Your task to perform on an android device: Go to Yahoo.com Image 0: 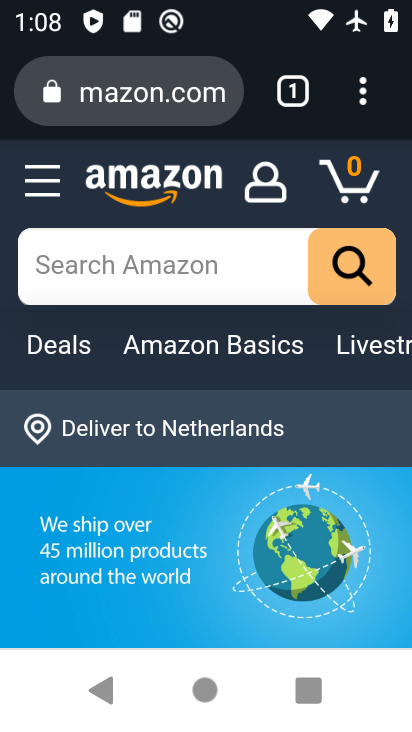
Step 0: press home button
Your task to perform on an android device: Go to Yahoo.com Image 1: 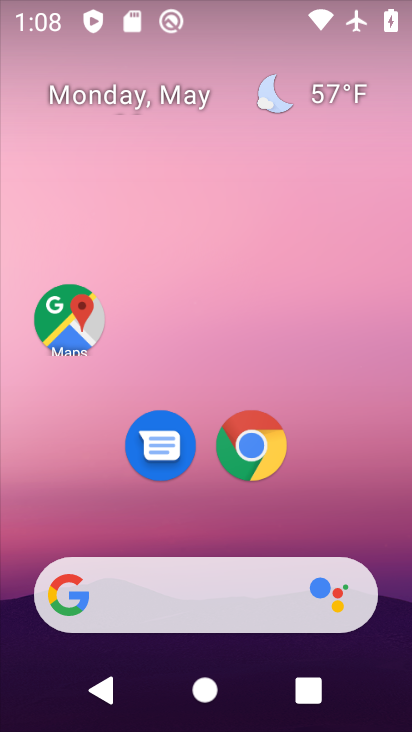
Step 1: drag from (392, 616) to (395, 440)
Your task to perform on an android device: Go to Yahoo.com Image 2: 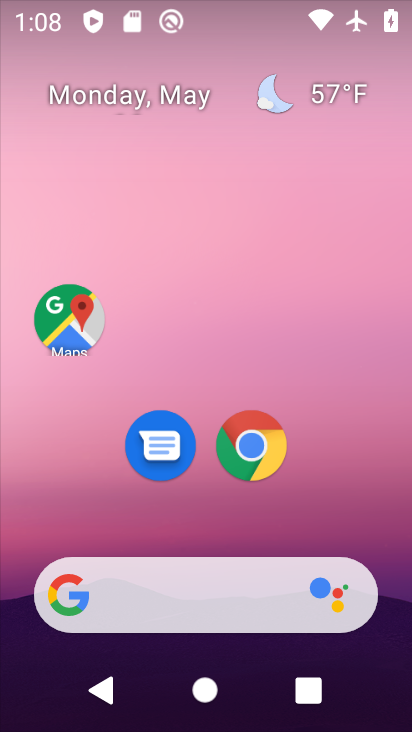
Step 2: click (283, 94)
Your task to perform on an android device: Go to Yahoo.com Image 3: 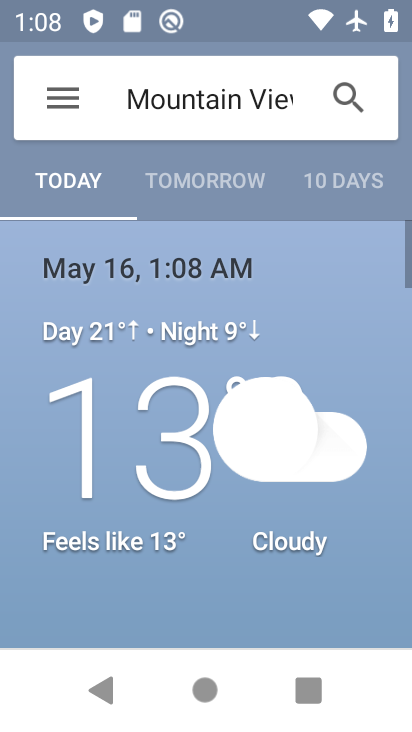
Step 3: press back button
Your task to perform on an android device: Go to Yahoo.com Image 4: 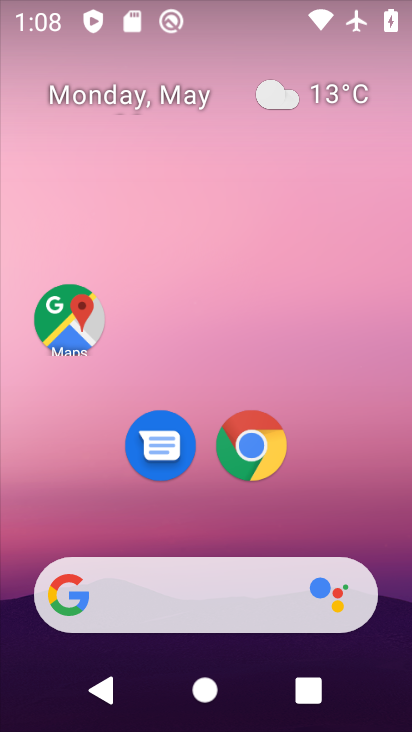
Step 4: drag from (401, 598) to (364, 188)
Your task to perform on an android device: Go to Yahoo.com Image 5: 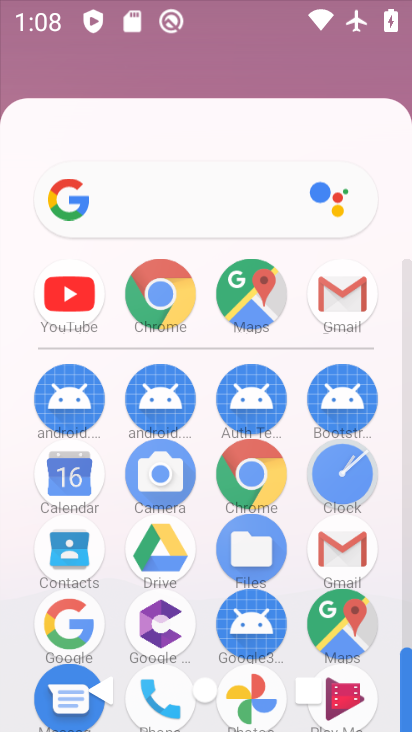
Step 5: click (303, 47)
Your task to perform on an android device: Go to Yahoo.com Image 6: 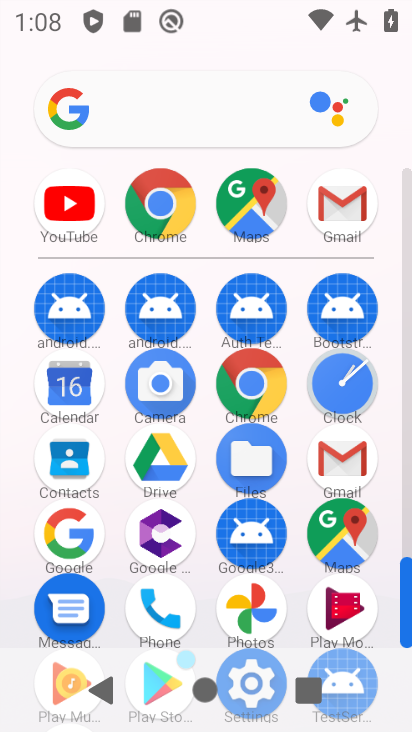
Step 6: click (270, 381)
Your task to perform on an android device: Go to Yahoo.com Image 7: 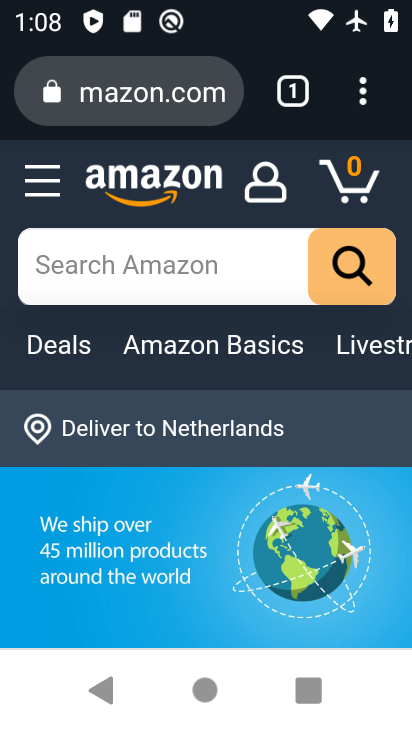
Step 7: press back button
Your task to perform on an android device: Go to Yahoo.com Image 8: 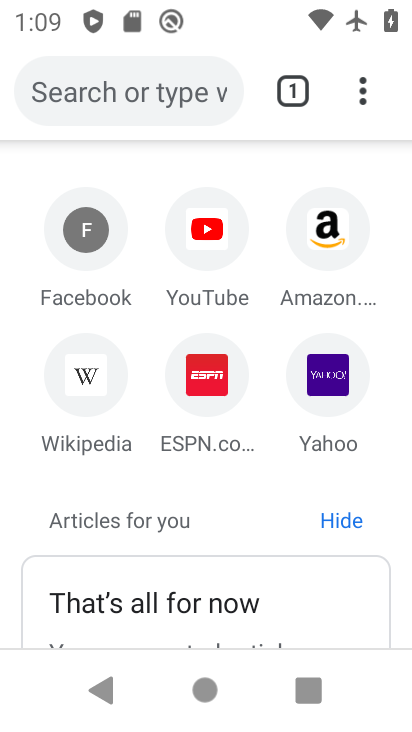
Step 8: click (342, 359)
Your task to perform on an android device: Go to Yahoo.com Image 9: 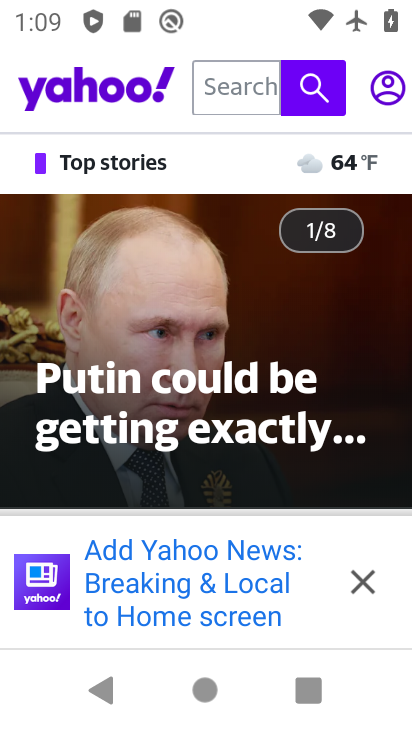
Step 9: task complete